Your task to perform on an android device: show emergency info Image 0: 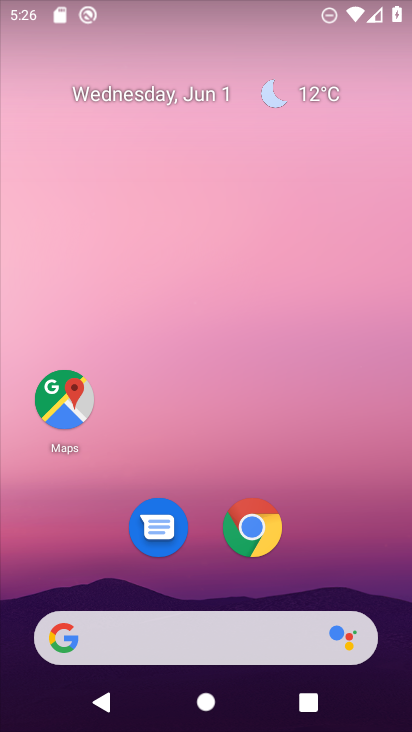
Step 0: drag from (186, 596) to (98, 18)
Your task to perform on an android device: show emergency info Image 1: 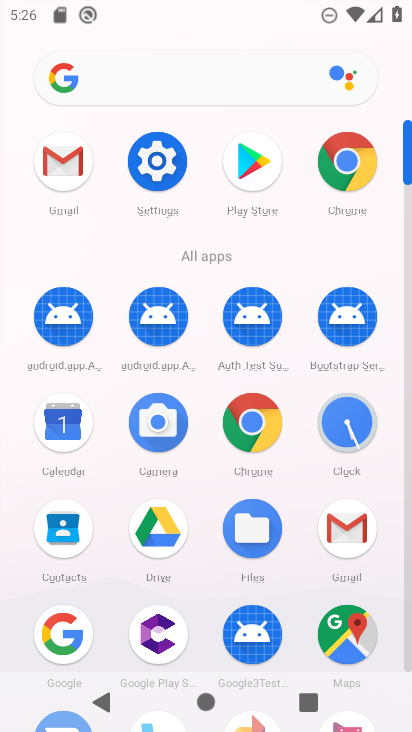
Step 1: click (172, 166)
Your task to perform on an android device: show emergency info Image 2: 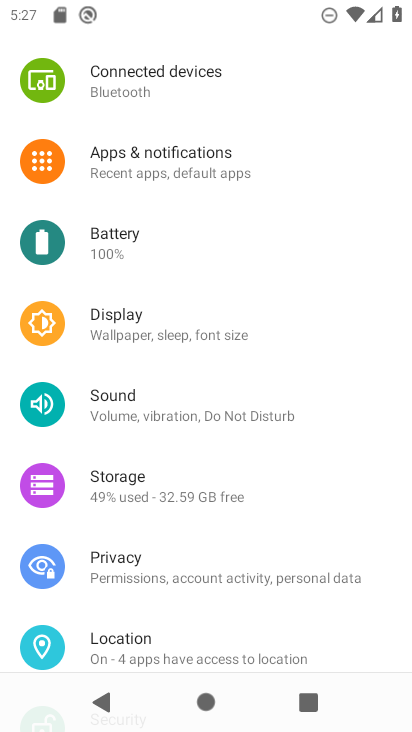
Step 2: drag from (125, 643) to (191, 13)
Your task to perform on an android device: show emergency info Image 3: 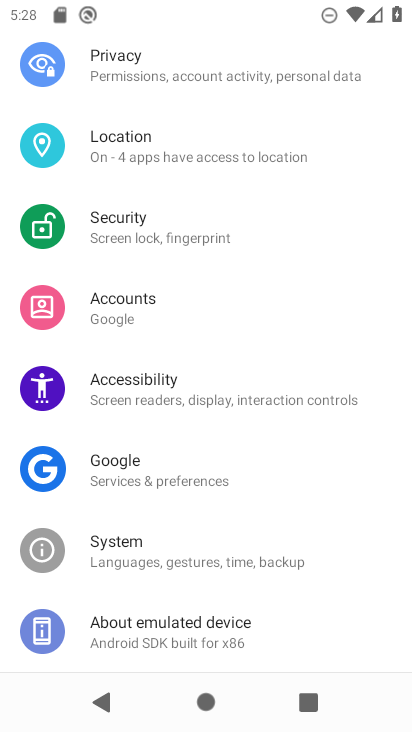
Step 3: drag from (107, 622) to (188, 47)
Your task to perform on an android device: show emergency info Image 4: 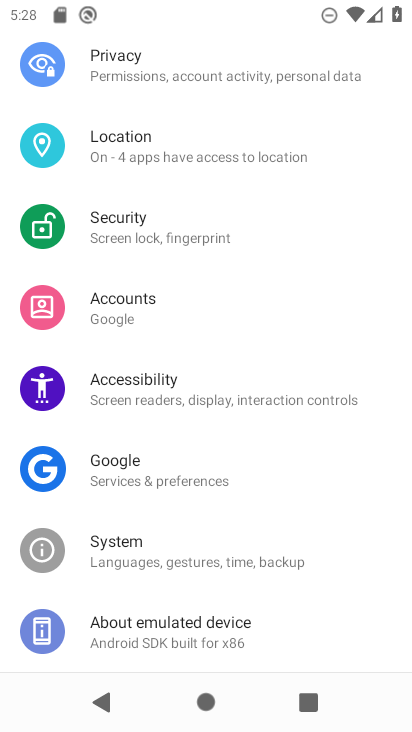
Step 4: click (172, 569)
Your task to perform on an android device: show emergency info Image 5: 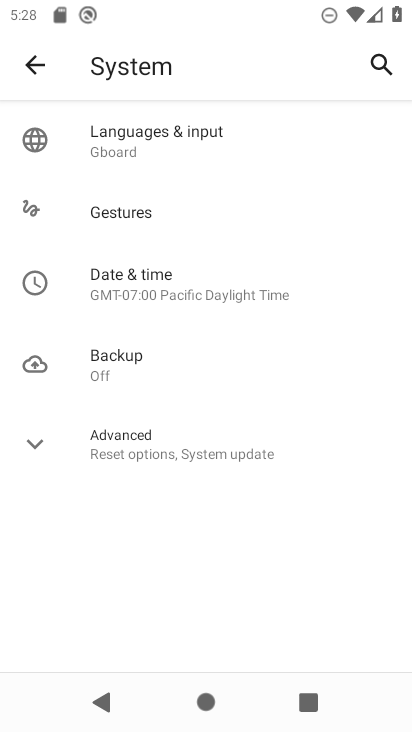
Step 5: task complete